Your task to perform on an android device: Open my contact list Image 0: 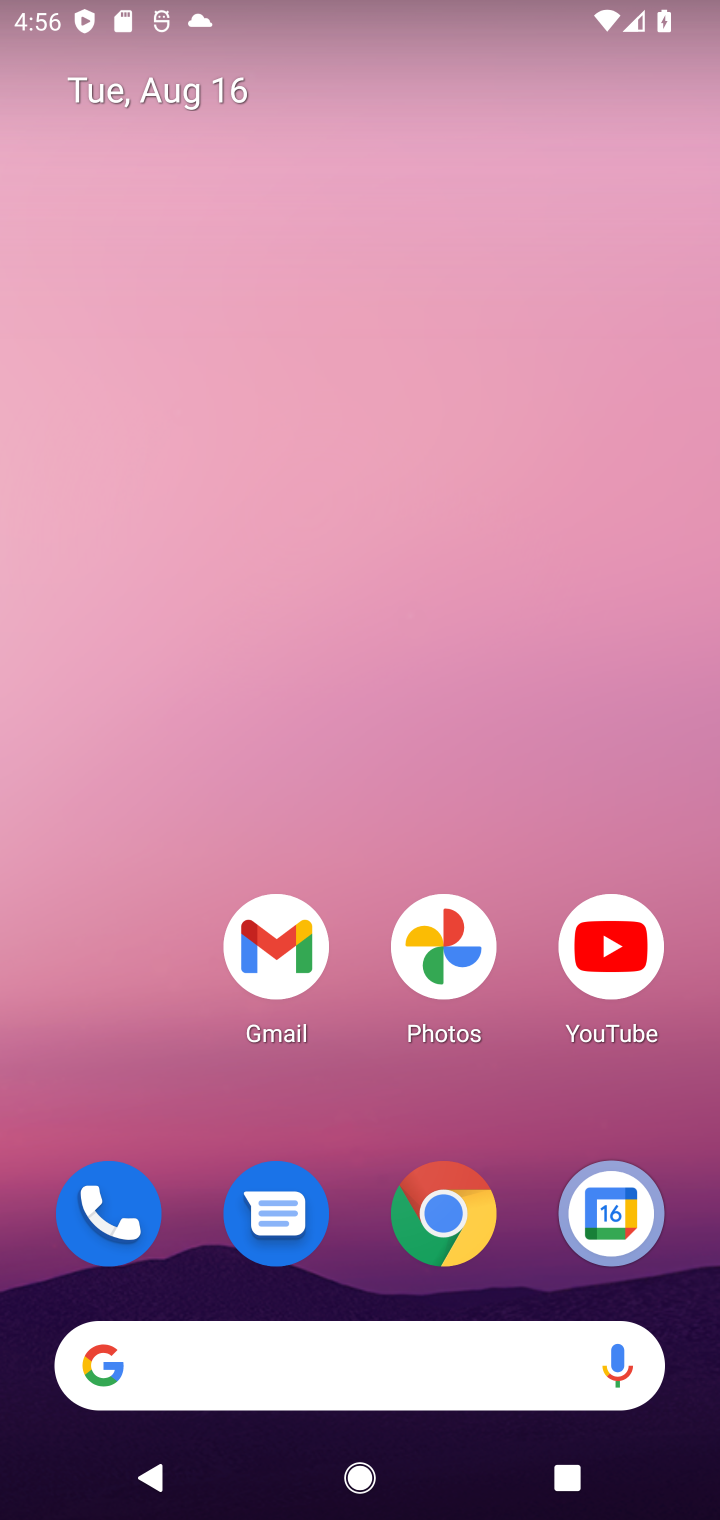
Step 0: drag from (453, 589) to (319, 1)
Your task to perform on an android device: Open my contact list Image 1: 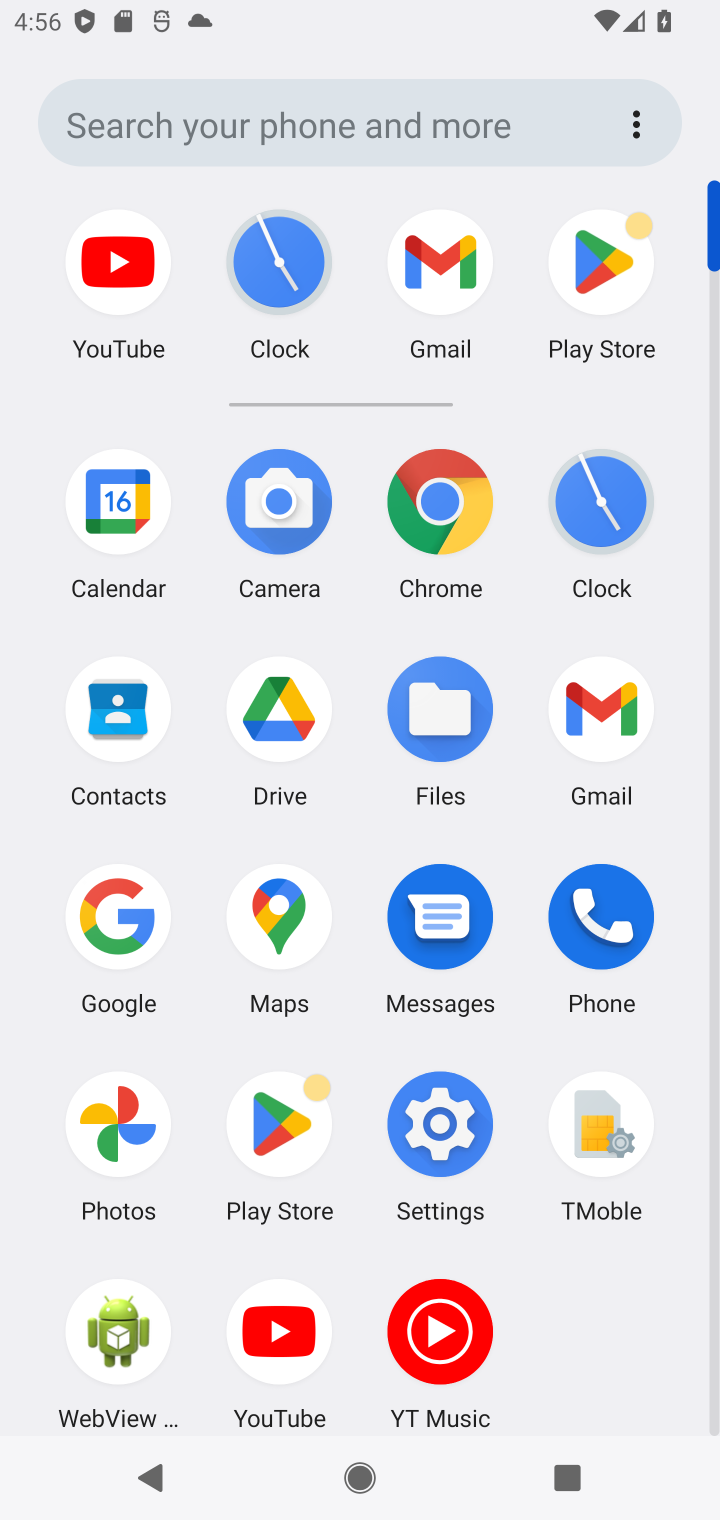
Step 1: click (101, 706)
Your task to perform on an android device: Open my contact list Image 2: 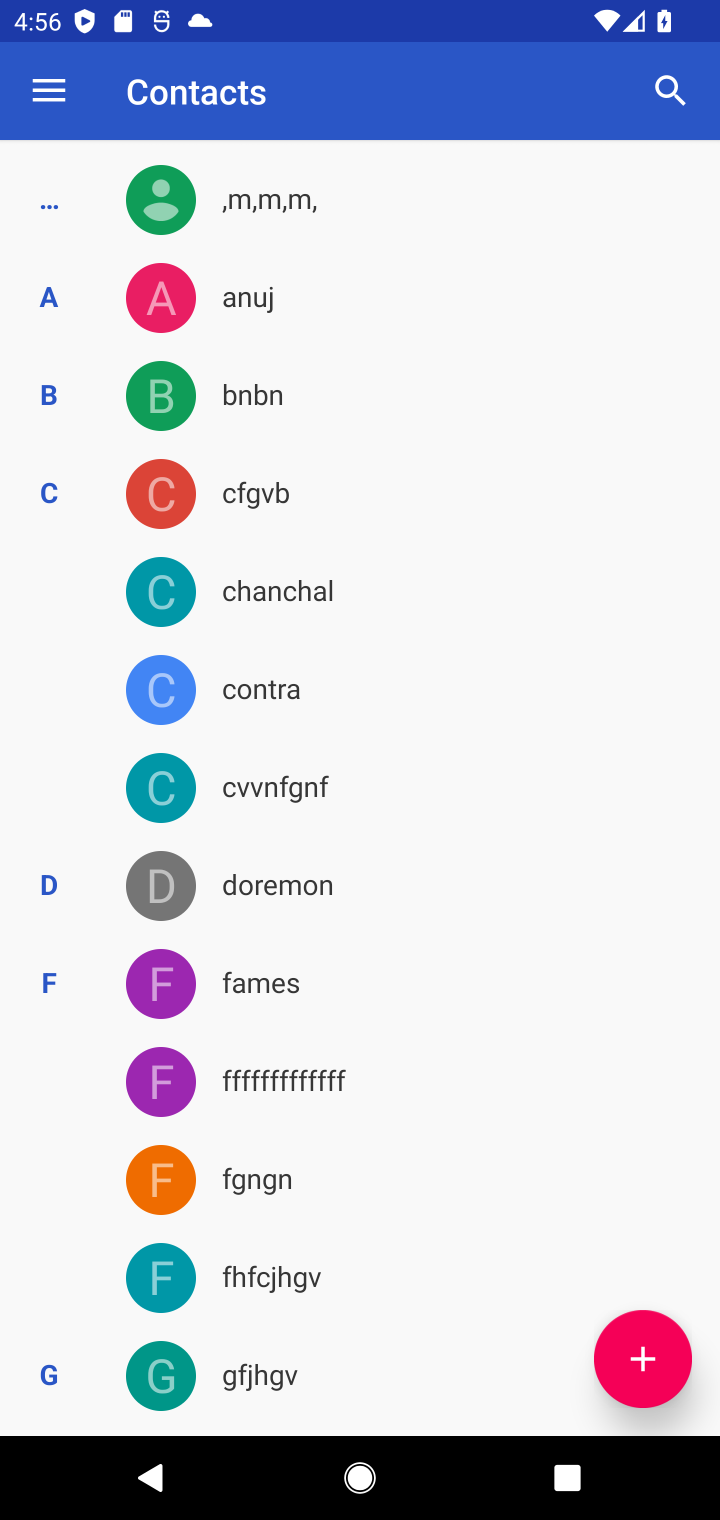
Step 2: task complete